Your task to perform on an android device: empty trash in the gmail app Image 0: 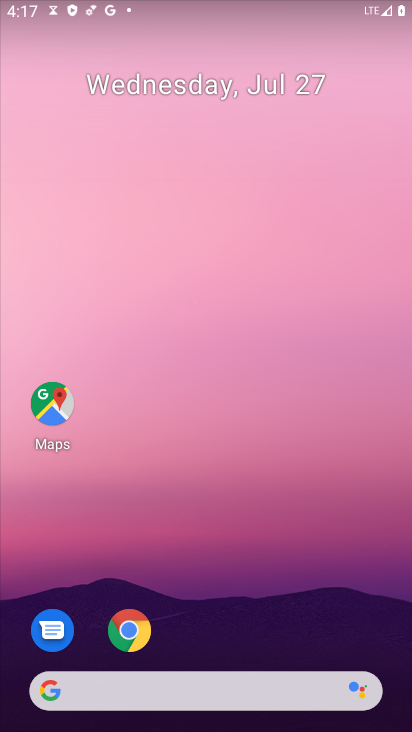
Step 0: drag from (227, 593) to (218, 7)
Your task to perform on an android device: empty trash in the gmail app Image 1: 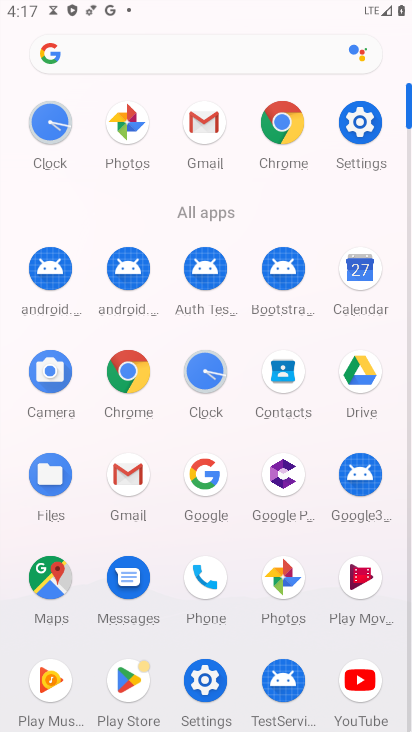
Step 1: click (137, 490)
Your task to perform on an android device: empty trash in the gmail app Image 2: 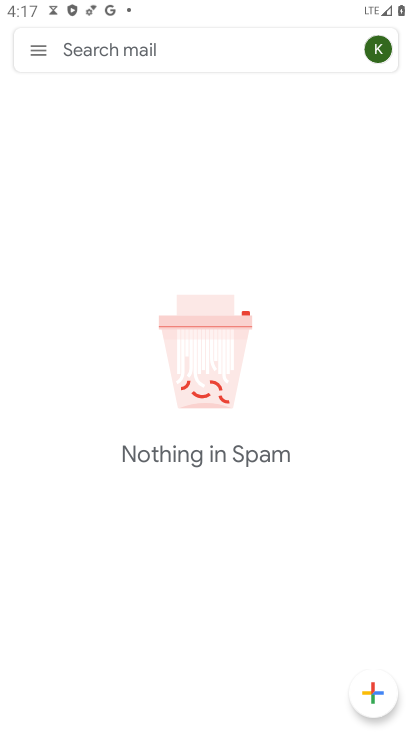
Step 2: click (40, 43)
Your task to perform on an android device: empty trash in the gmail app Image 3: 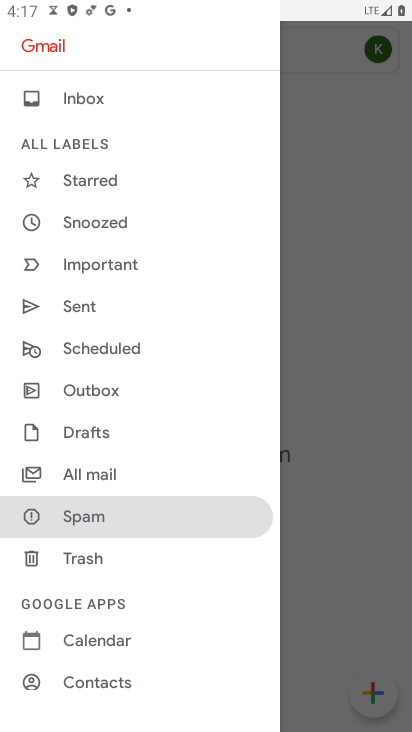
Step 3: click (104, 561)
Your task to perform on an android device: empty trash in the gmail app Image 4: 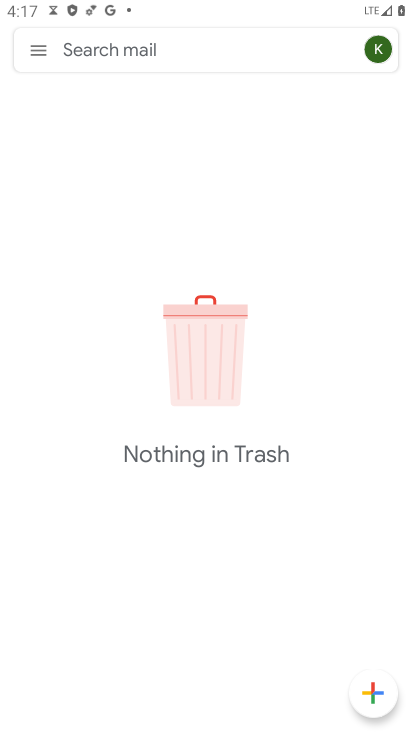
Step 4: task complete